Your task to perform on an android device: Open notification settings Image 0: 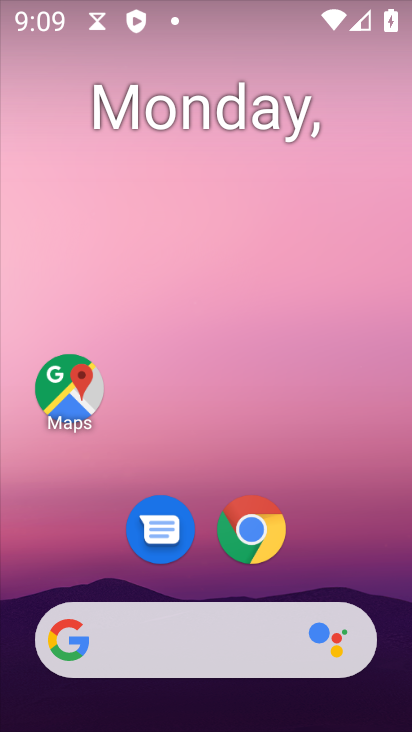
Step 0: drag from (232, 689) to (150, 126)
Your task to perform on an android device: Open notification settings Image 1: 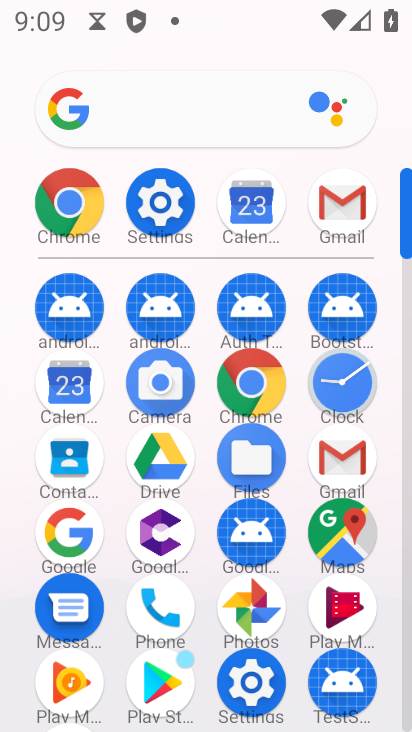
Step 1: click (170, 210)
Your task to perform on an android device: Open notification settings Image 2: 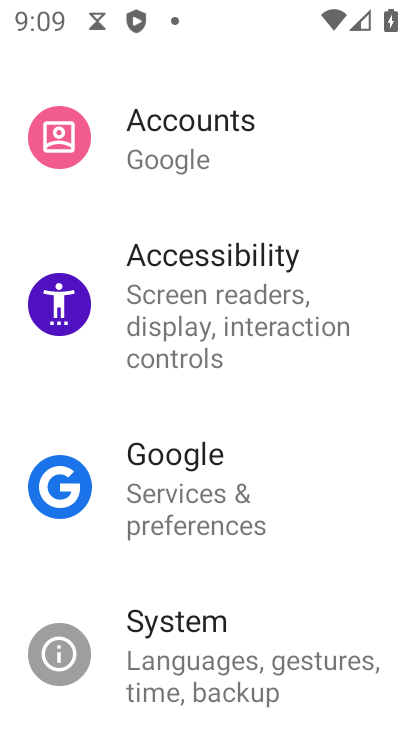
Step 2: drag from (171, 173) to (234, 458)
Your task to perform on an android device: Open notification settings Image 3: 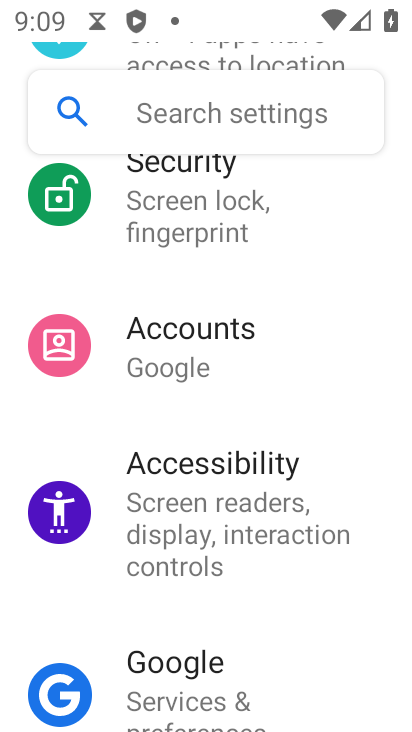
Step 3: drag from (221, 415) to (253, 599)
Your task to perform on an android device: Open notification settings Image 4: 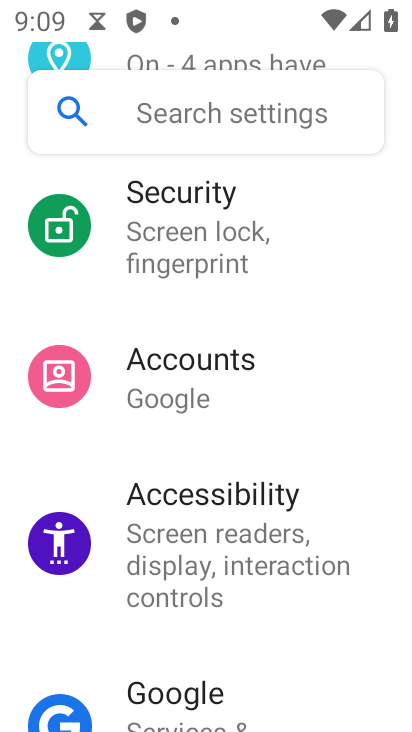
Step 4: drag from (210, 275) to (238, 470)
Your task to perform on an android device: Open notification settings Image 5: 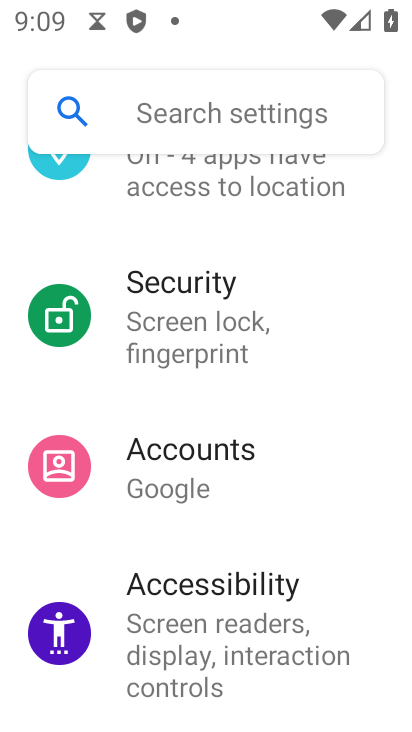
Step 5: drag from (233, 307) to (247, 648)
Your task to perform on an android device: Open notification settings Image 6: 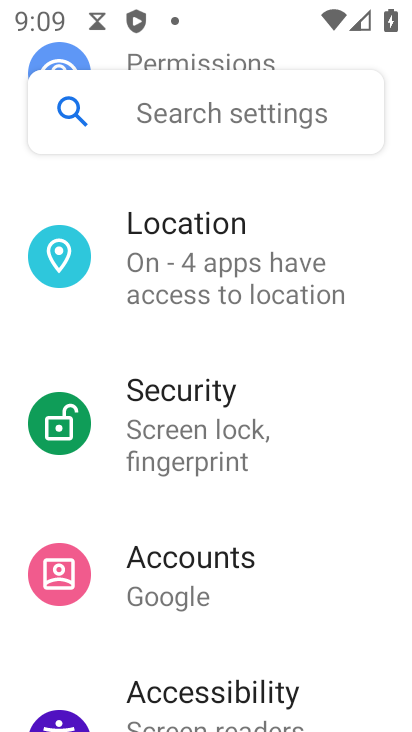
Step 6: drag from (198, 294) to (276, 726)
Your task to perform on an android device: Open notification settings Image 7: 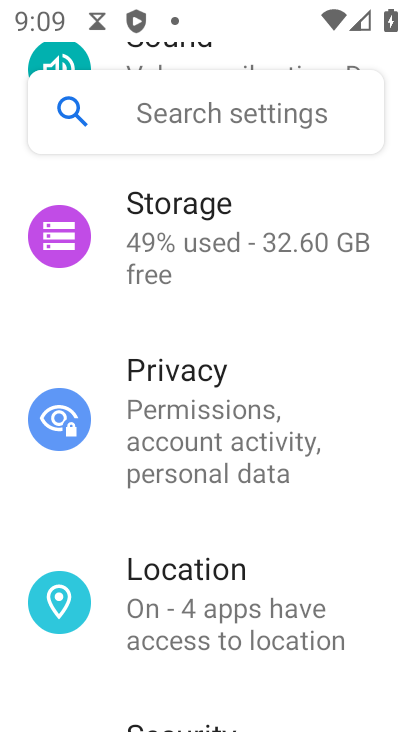
Step 7: drag from (245, 329) to (265, 580)
Your task to perform on an android device: Open notification settings Image 8: 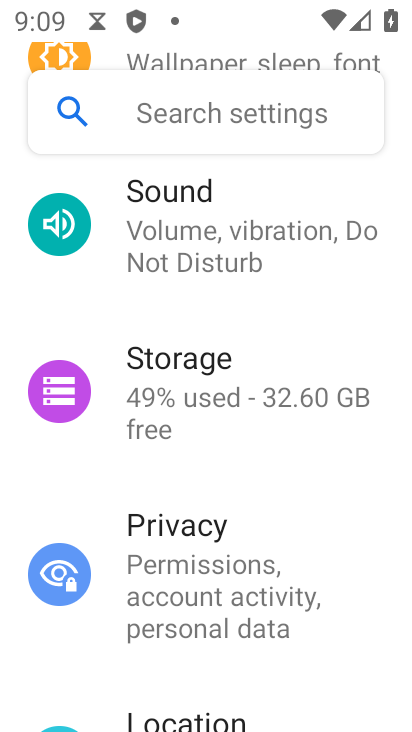
Step 8: drag from (184, 357) to (200, 670)
Your task to perform on an android device: Open notification settings Image 9: 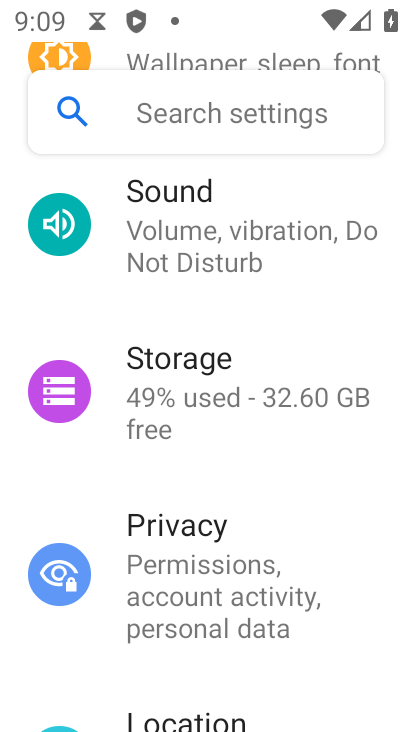
Step 9: drag from (168, 264) to (214, 546)
Your task to perform on an android device: Open notification settings Image 10: 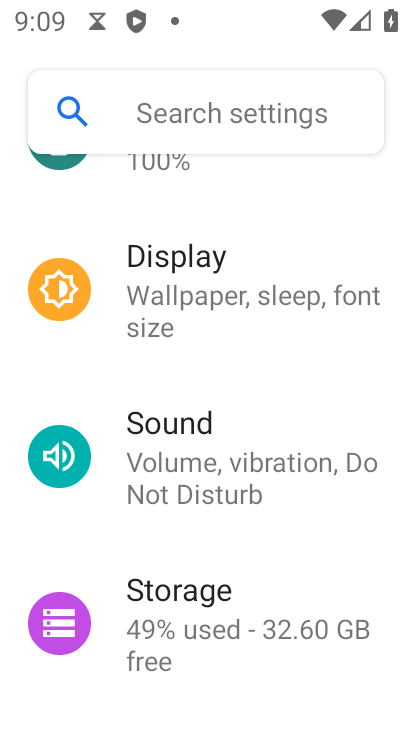
Step 10: drag from (215, 210) to (257, 617)
Your task to perform on an android device: Open notification settings Image 11: 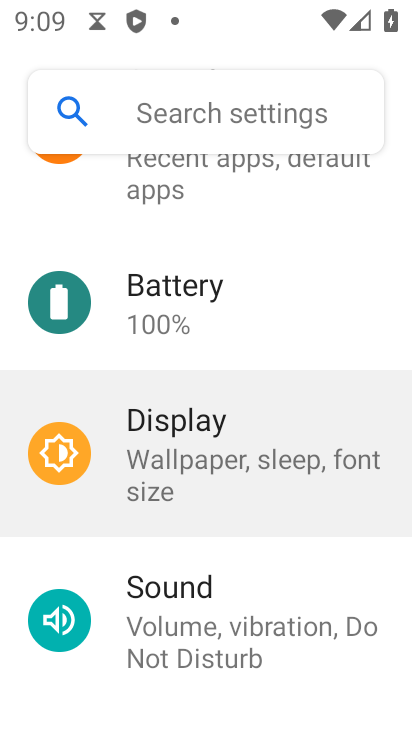
Step 11: drag from (247, 317) to (219, 585)
Your task to perform on an android device: Open notification settings Image 12: 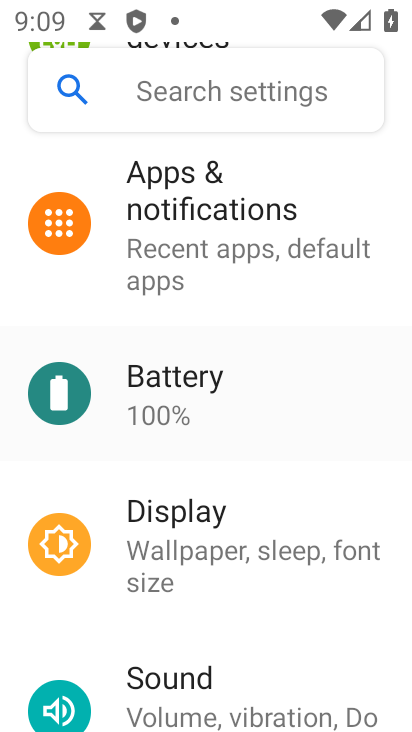
Step 12: drag from (144, 280) to (125, 528)
Your task to perform on an android device: Open notification settings Image 13: 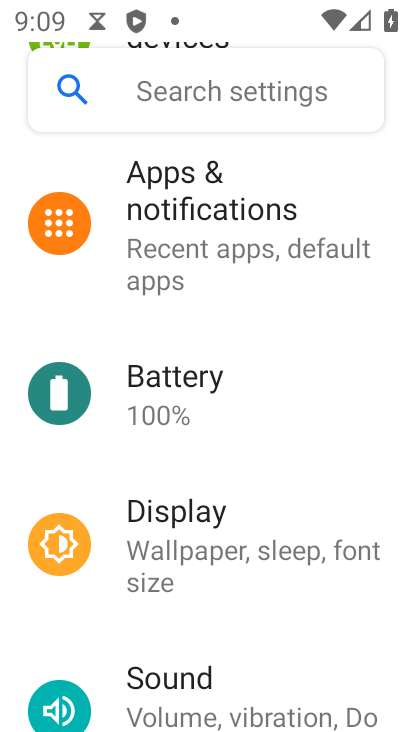
Step 13: drag from (128, 222) to (196, 728)
Your task to perform on an android device: Open notification settings Image 14: 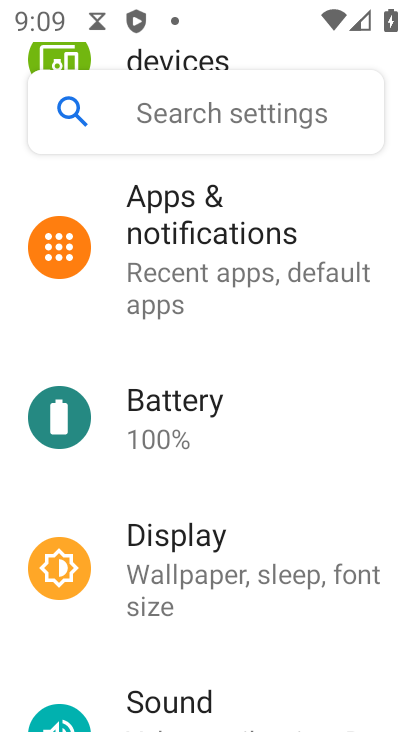
Step 14: click (224, 252)
Your task to perform on an android device: Open notification settings Image 15: 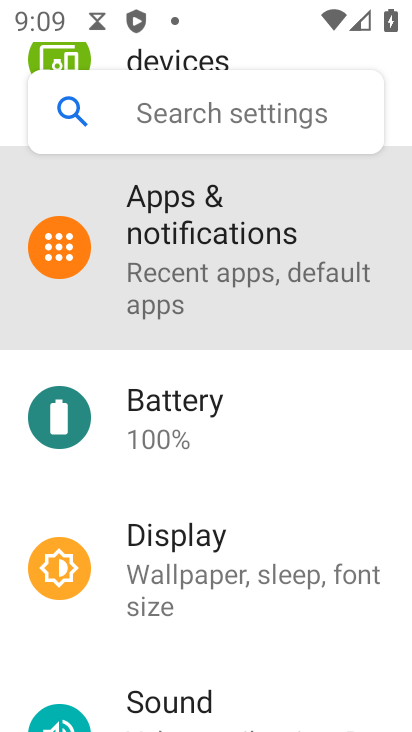
Step 15: click (235, 246)
Your task to perform on an android device: Open notification settings Image 16: 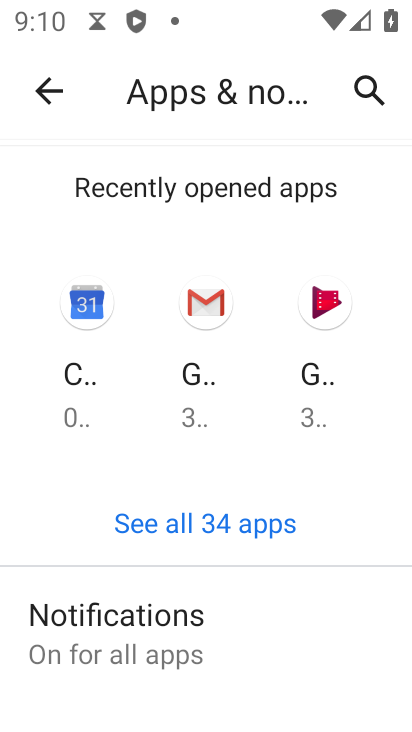
Step 16: drag from (140, 615) to (171, 294)
Your task to perform on an android device: Open notification settings Image 17: 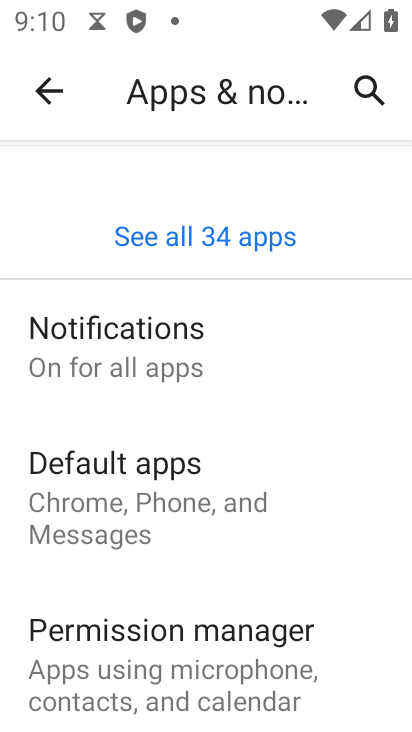
Step 17: click (104, 337)
Your task to perform on an android device: Open notification settings Image 18: 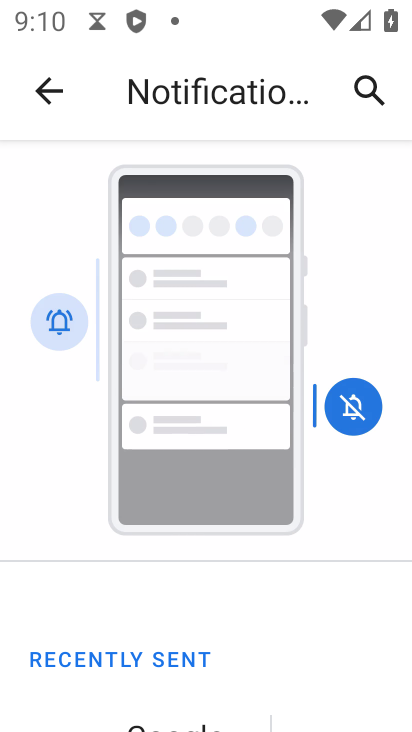
Step 18: task complete